Your task to perform on an android device: move a message to another label in the gmail app Image 0: 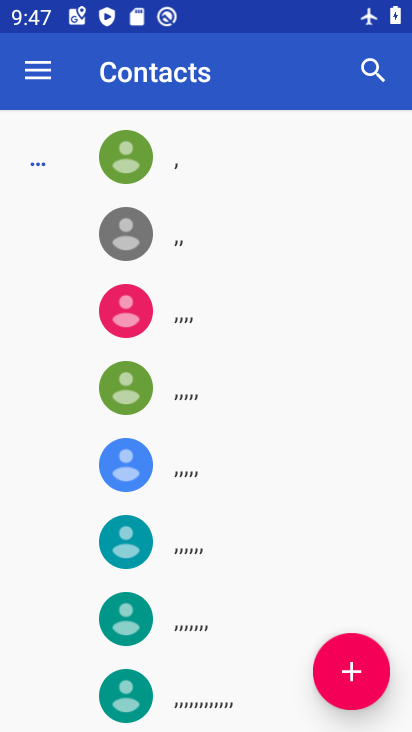
Step 0: press home button
Your task to perform on an android device: move a message to another label in the gmail app Image 1: 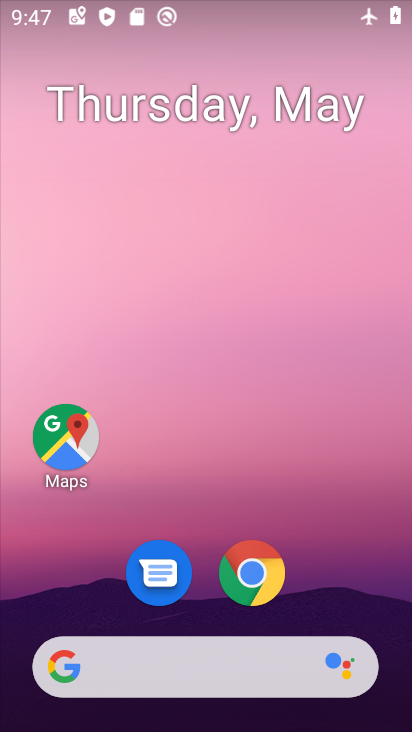
Step 1: drag from (200, 609) to (192, 185)
Your task to perform on an android device: move a message to another label in the gmail app Image 2: 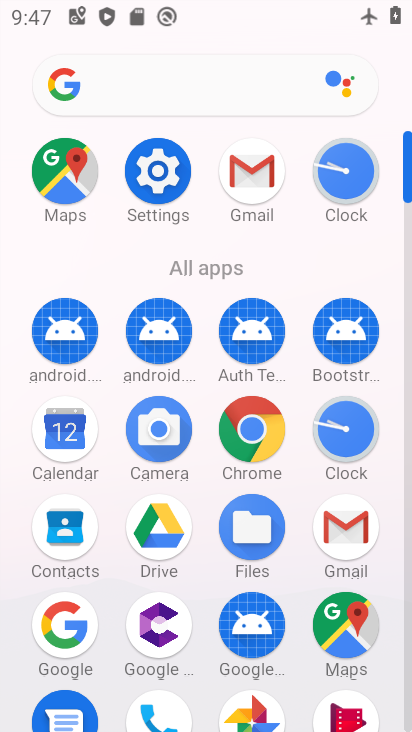
Step 2: click (316, 524)
Your task to perform on an android device: move a message to another label in the gmail app Image 3: 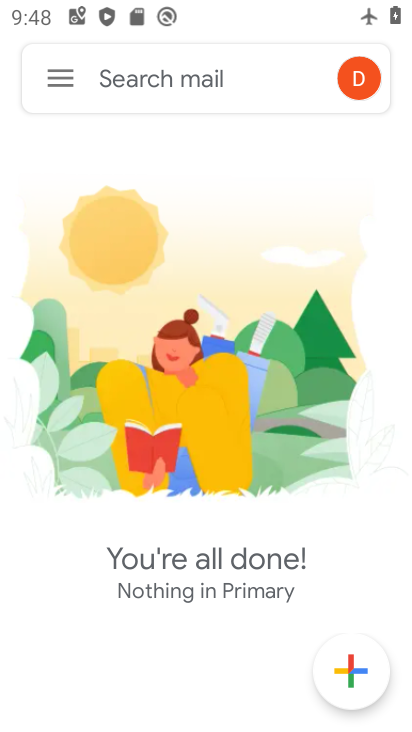
Step 3: click (62, 70)
Your task to perform on an android device: move a message to another label in the gmail app Image 4: 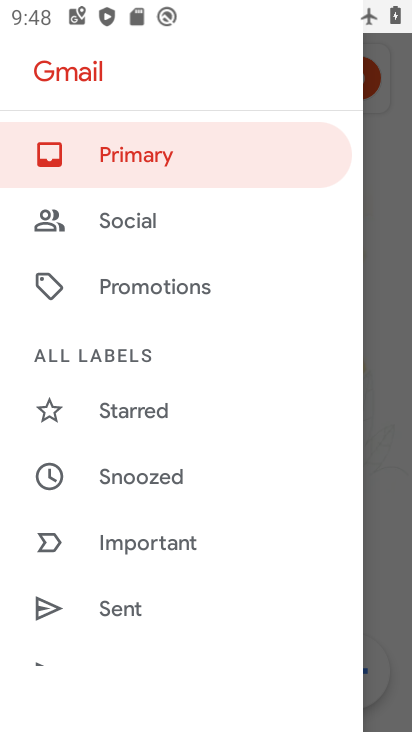
Step 4: drag from (156, 560) to (170, 393)
Your task to perform on an android device: move a message to another label in the gmail app Image 5: 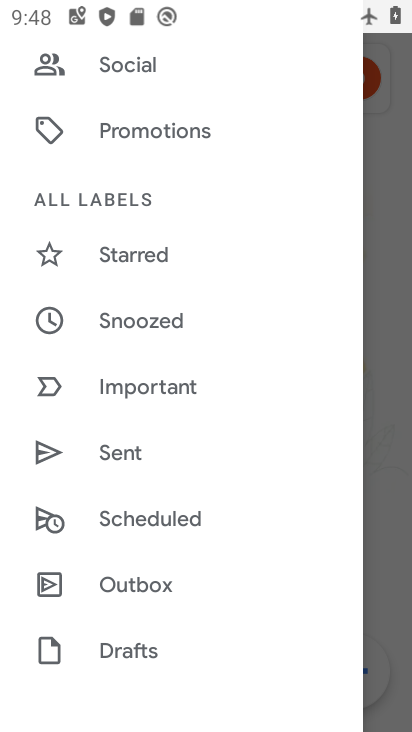
Step 5: drag from (173, 561) to (179, 330)
Your task to perform on an android device: move a message to another label in the gmail app Image 6: 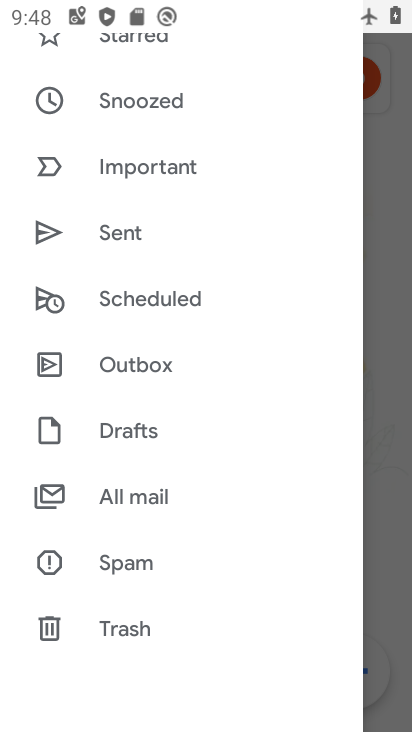
Step 6: click (134, 509)
Your task to perform on an android device: move a message to another label in the gmail app Image 7: 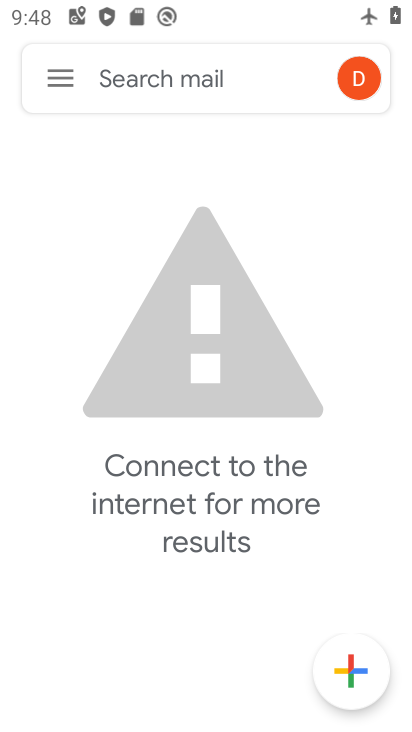
Step 7: task complete